Your task to perform on an android device: check out phone information Image 0: 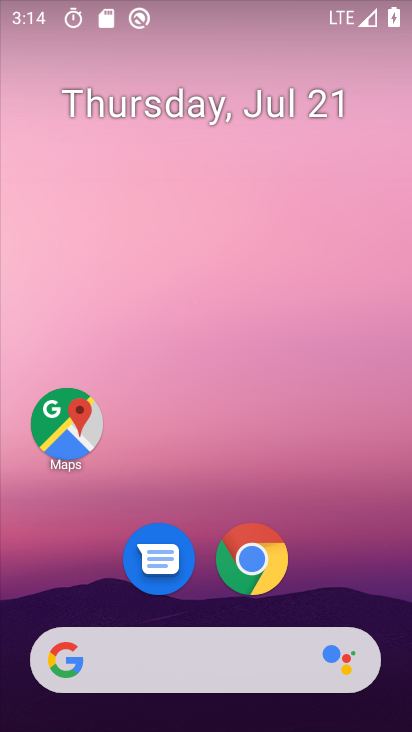
Step 0: drag from (365, 587) to (380, 172)
Your task to perform on an android device: check out phone information Image 1: 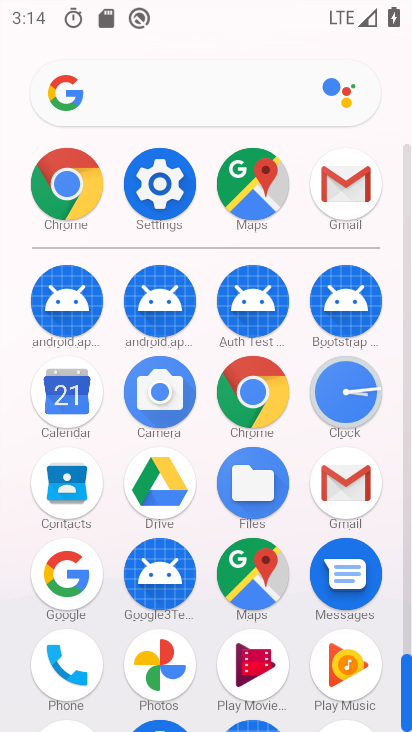
Step 1: click (76, 669)
Your task to perform on an android device: check out phone information Image 2: 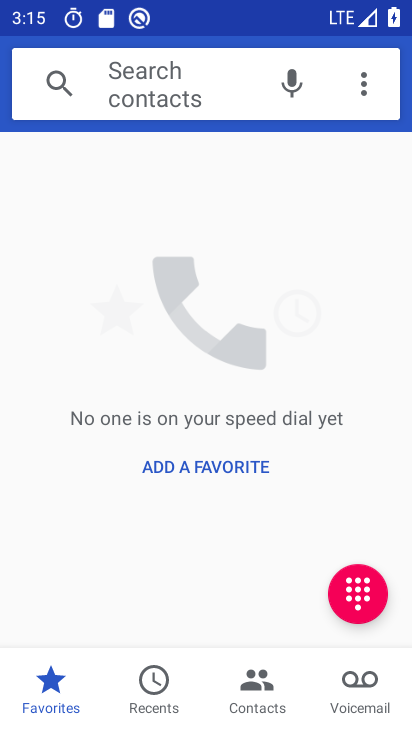
Step 2: task complete